Your task to perform on an android device: remove spam from my inbox in the gmail app Image 0: 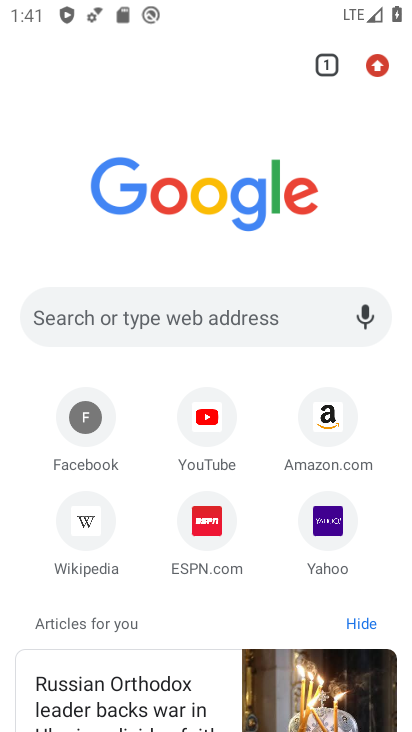
Step 0: press home button
Your task to perform on an android device: remove spam from my inbox in the gmail app Image 1: 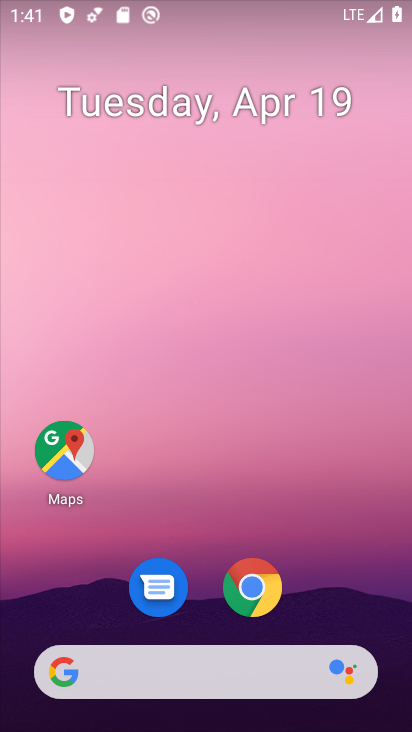
Step 1: drag from (304, 631) to (261, 91)
Your task to perform on an android device: remove spam from my inbox in the gmail app Image 2: 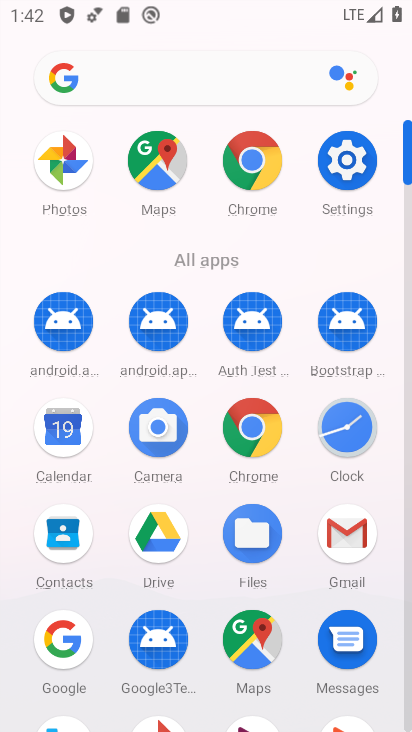
Step 2: click (346, 531)
Your task to perform on an android device: remove spam from my inbox in the gmail app Image 3: 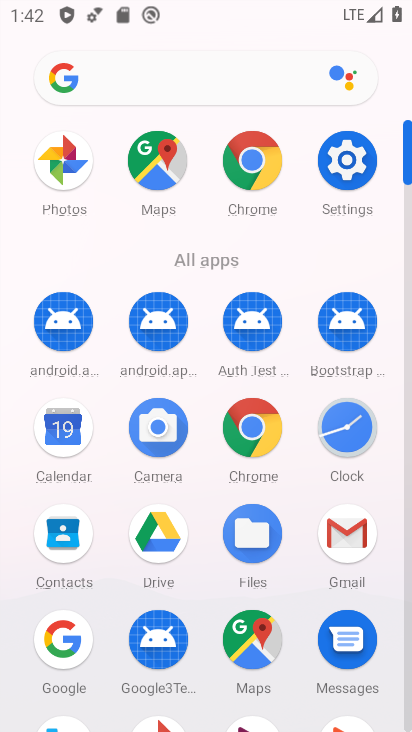
Step 3: click (346, 531)
Your task to perform on an android device: remove spam from my inbox in the gmail app Image 4: 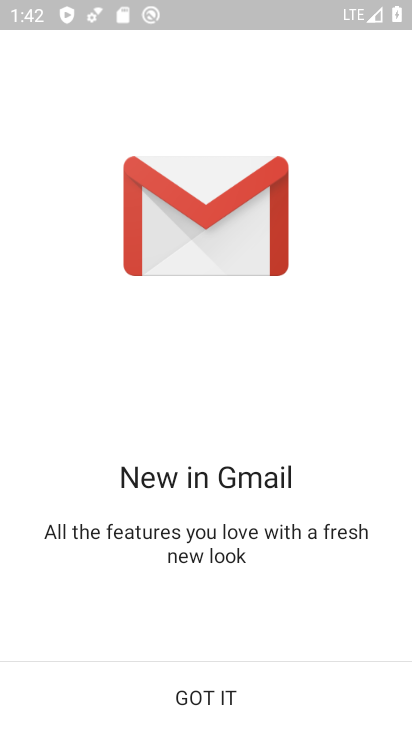
Step 4: click (353, 513)
Your task to perform on an android device: remove spam from my inbox in the gmail app Image 5: 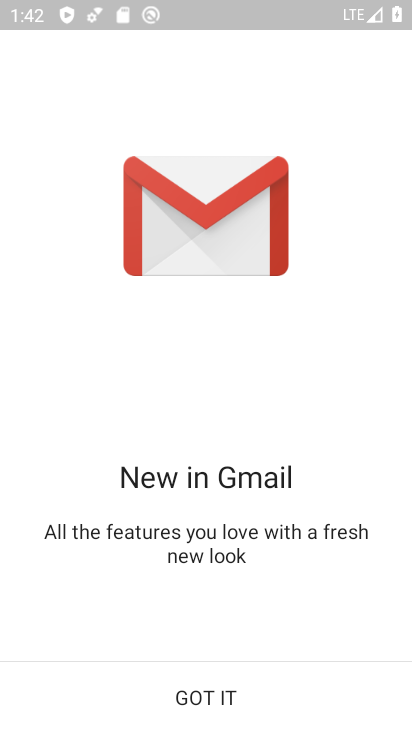
Step 5: click (204, 697)
Your task to perform on an android device: remove spam from my inbox in the gmail app Image 6: 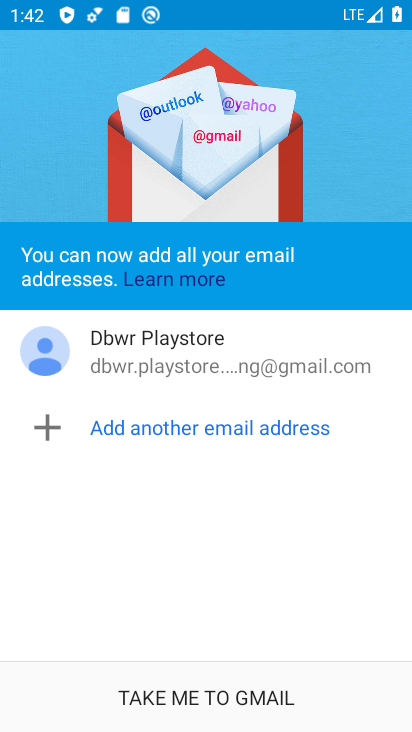
Step 6: click (222, 698)
Your task to perform on an android device: remove spam from my inbox in the gmail app Image 7: 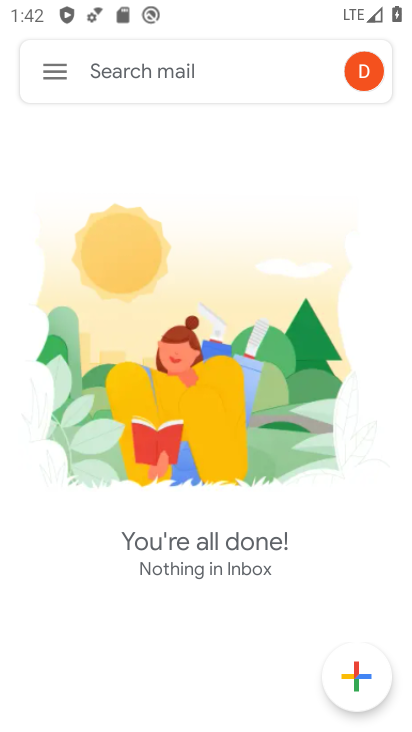
Step 7: click (60, 75)
Your task to perform on an android device: remove spam from my inbox in the gmail app Image 8: 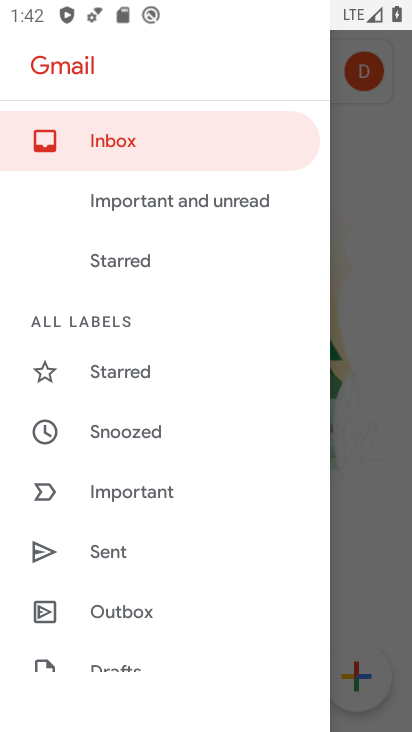
Step 8: drag from (91, 303) to (146, 337)
Your task to perform on an android device: remove spam from my inbox in the gmail app Image 9: 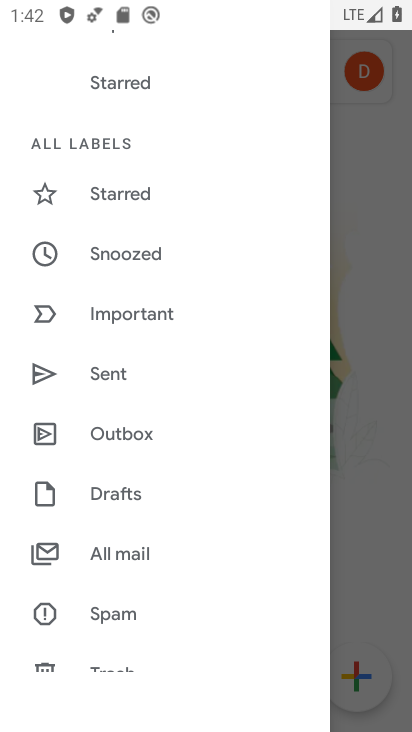
Step 9: click (140, 506)
Your task to perform on an android device: remove spam from my inbox in the gmail app Image 10: 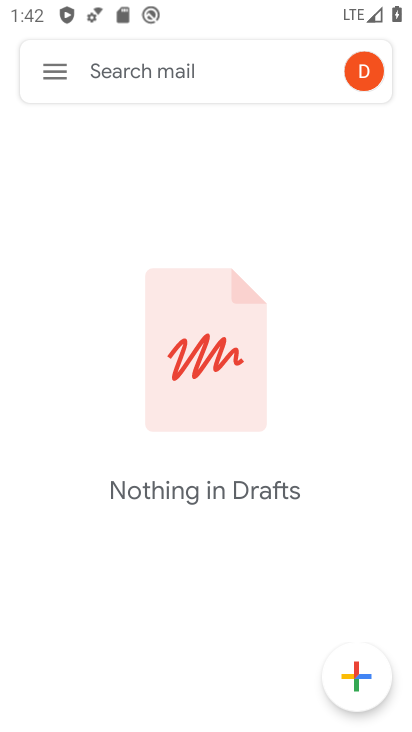
Step 10: click (107, 546)
Your task to perform on an android device: remove spam from my inbox in the gmail app Image 11: 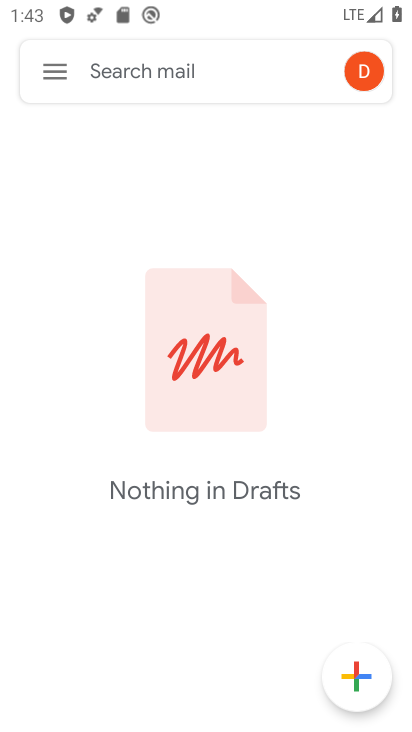
Step 11: click (54, 71)
Your task to perform on an android device: remove spam from my inbox in the gmail app Image 12: 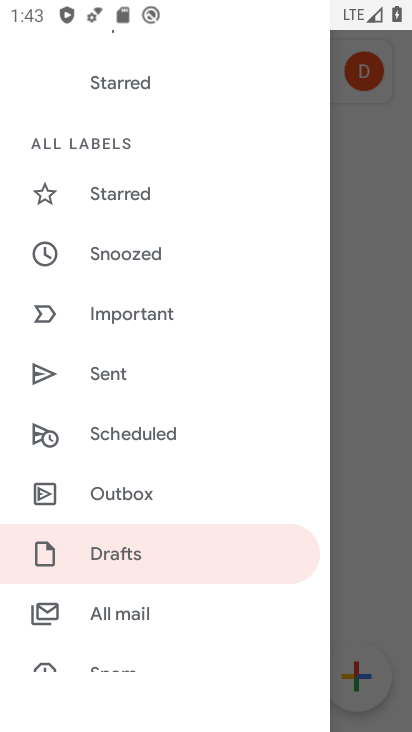
Step 12: drag from (216, 485) to (216, 112)
Your task to perform on an android device: remove spam from my inbox in the gmail app Image 13: 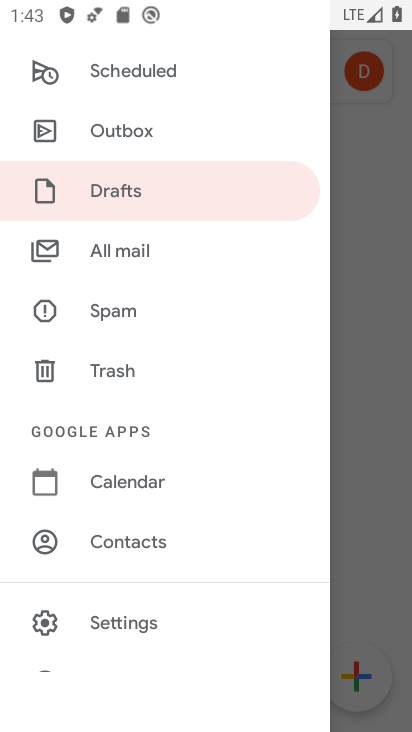
Step 13: click (113, 304)
Your task to perform on an android device: remove spam from my inbox in the gmail app Image 14: 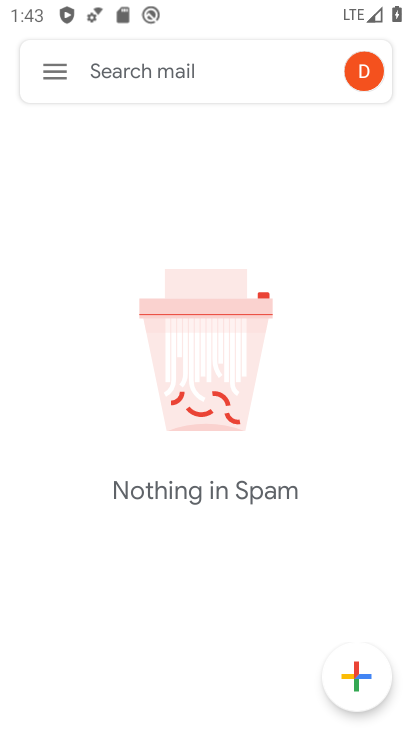
Step 14: task complete